Your task to perform on an android device: show emergency info Image 0: 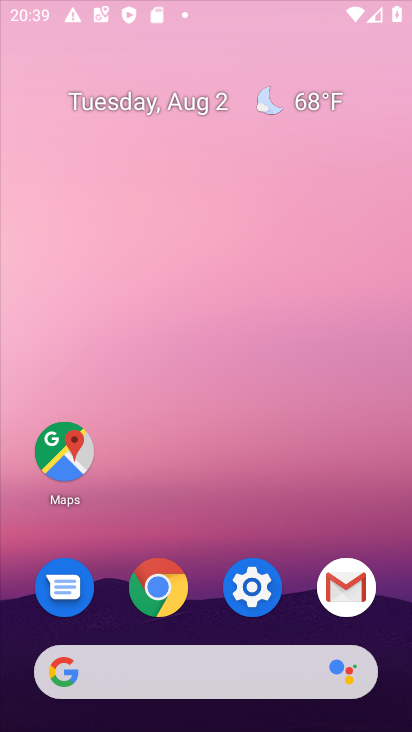
Step 0: press home button
Your task to perform on an android device: show emergency info Image 1: 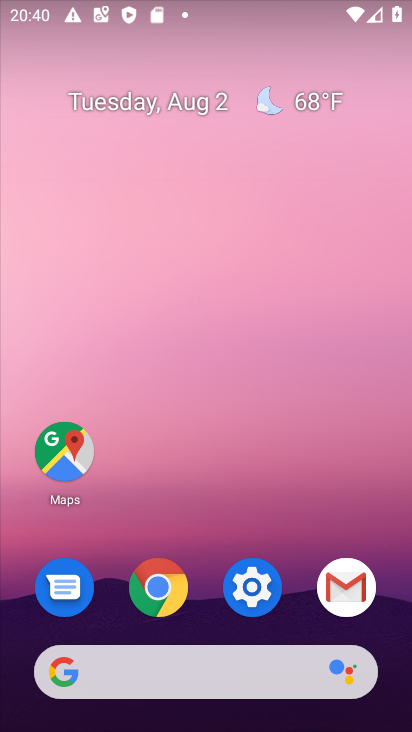
Step 1: click (265, 587)
Your task to perform on an android device: show emergency info Image 2: 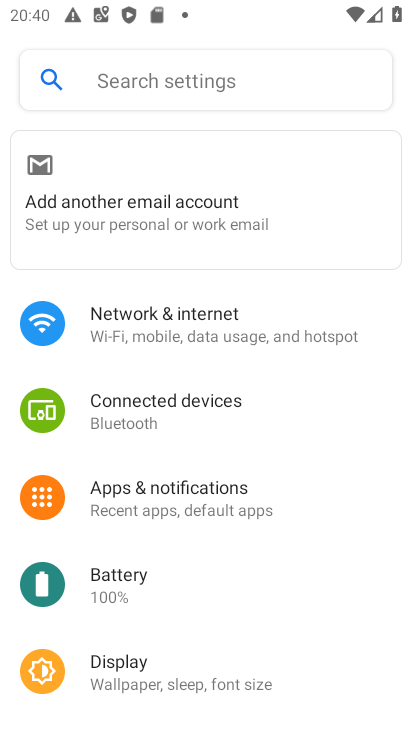
Step 2: click (114, 90)
Your task to perform on an android device: show emergency info Image 3: 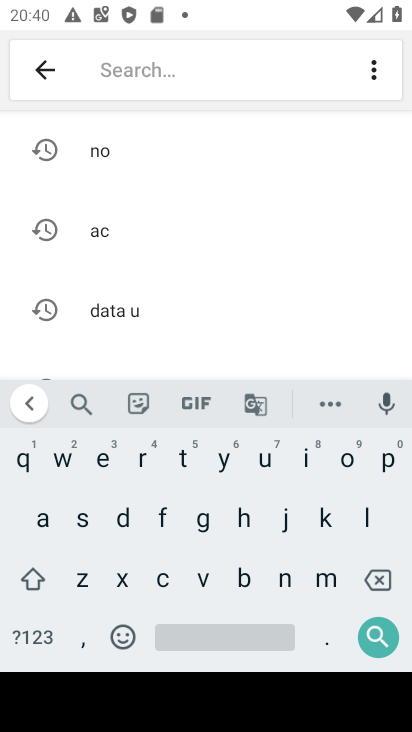
Step 3: click (100, 459)
Your task to perform on an android device: show emergency info Image 4: 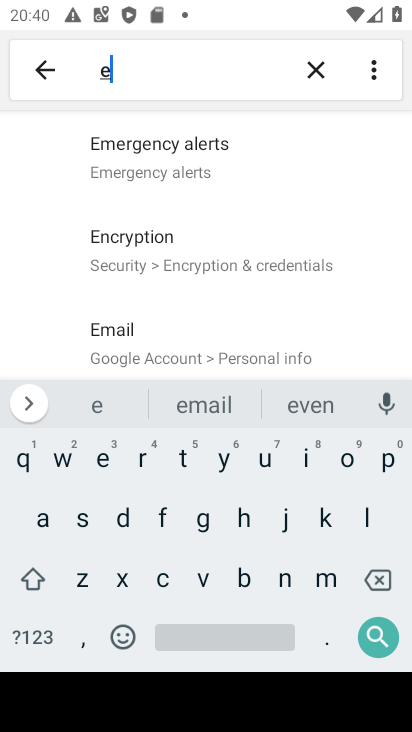
Step 4: click (330, 572)
Your task to perform on an android device: show emergency info Image 5: 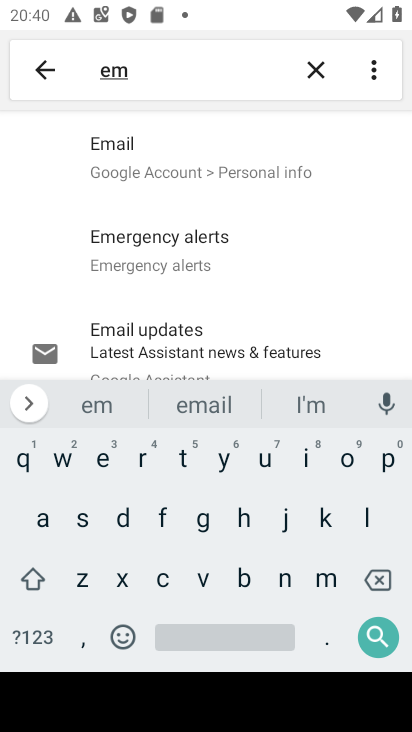
Step 5: click (99, 461)
Your task to perform on an android device: show emergency info Image 6: 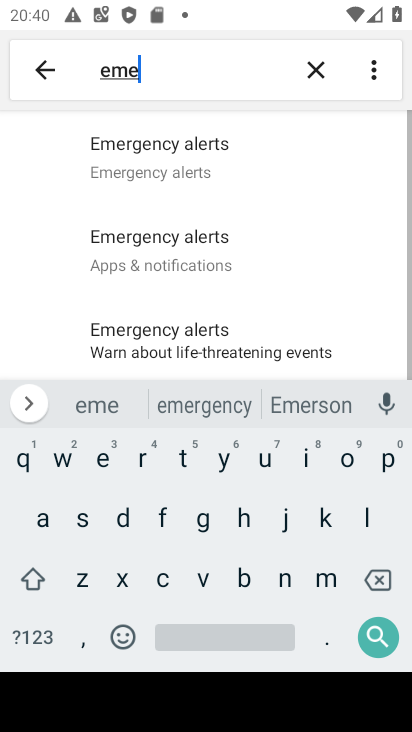
Step 6: click (173, 394)
Your task to perform on an android device: show emergency info Image 7: 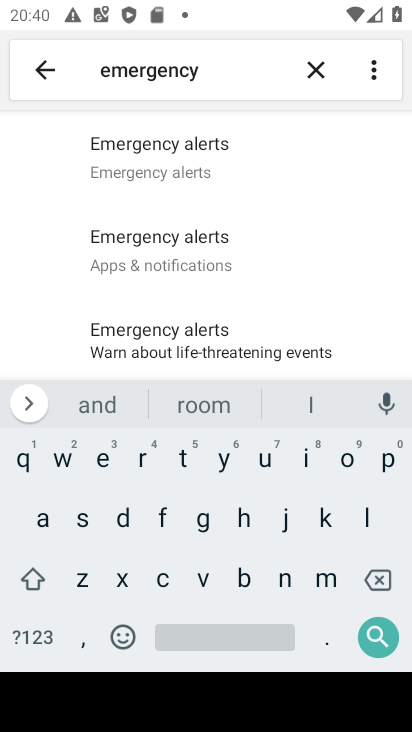
Step 7: click (302, 457)
Your task to perform on an android device: show emergency info Image 8: 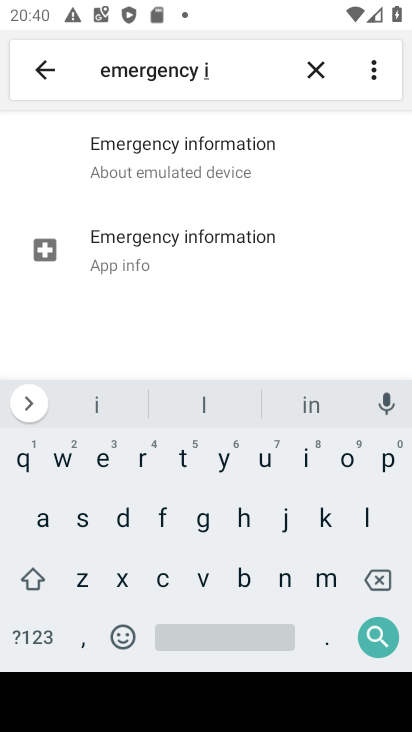
Step 8: click (199, 169)
Your task to perform on an android device: show emergency info Image 9: 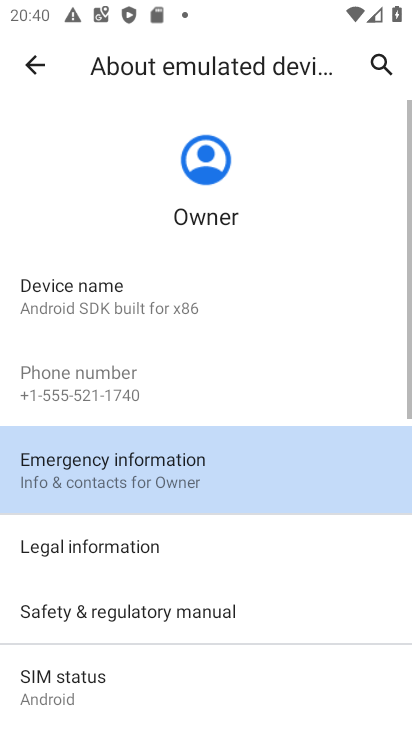
Step 9: click (154, 477)
Your task to perform on an android device: show emergency info Image 10: 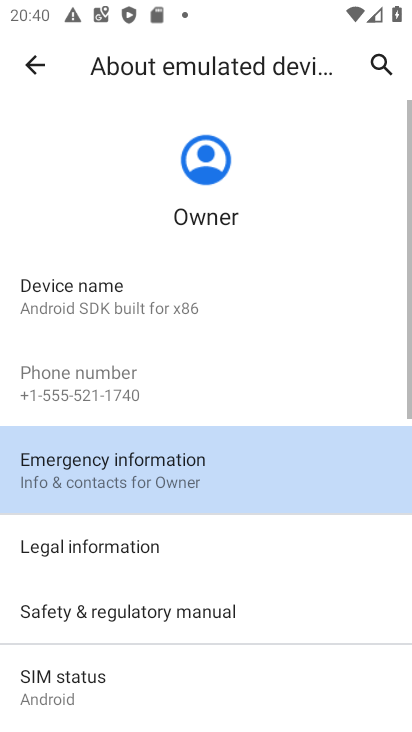
Step 10: task complete